Your task to perform on an android device: turn pop-ups on in chrome Image 0: 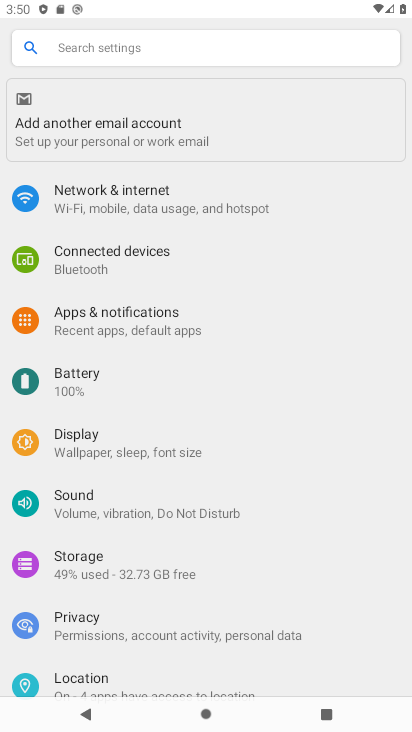
Step 0: press home button
Your task to perform on an android device: turn pop-ups on in chrome Image 1: 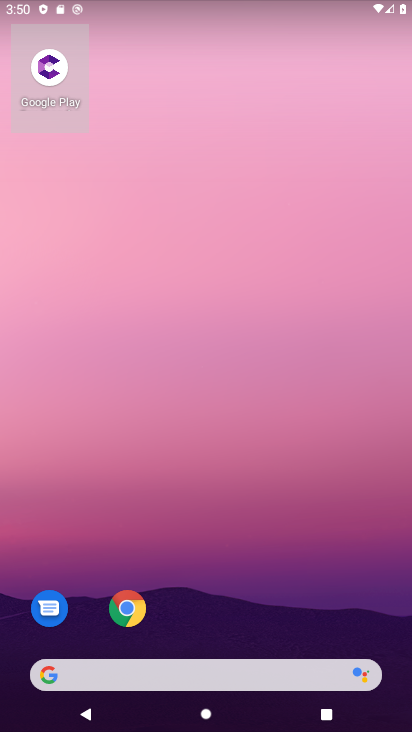
Step 1: click (142, 618)
Your task to perform on an android device: turn pop-ups on in chrome Image 2: 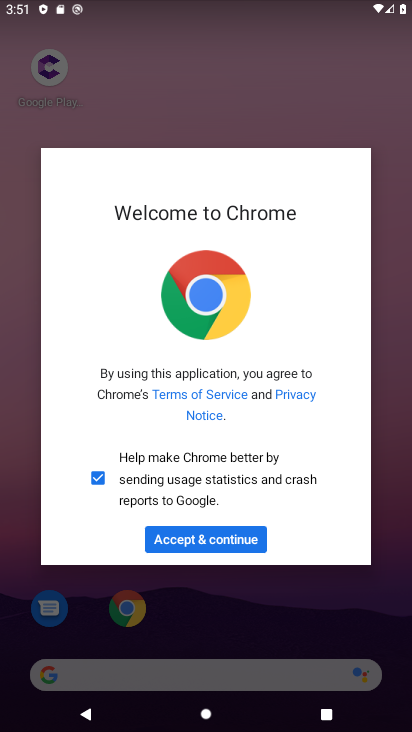
Step 2: click (174, 542)
Your task to perform on an android device: turn pop-ups on in chrome Image 3: 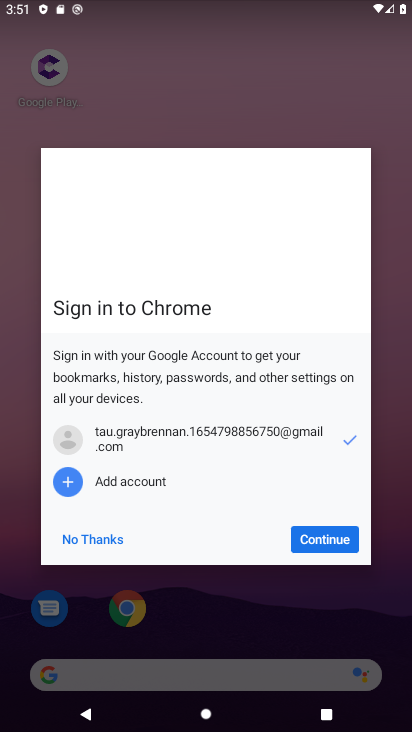
Step 3: click (349, 545)
Your task to perform on an android device: turn pop-ups on in chrome Image 4: 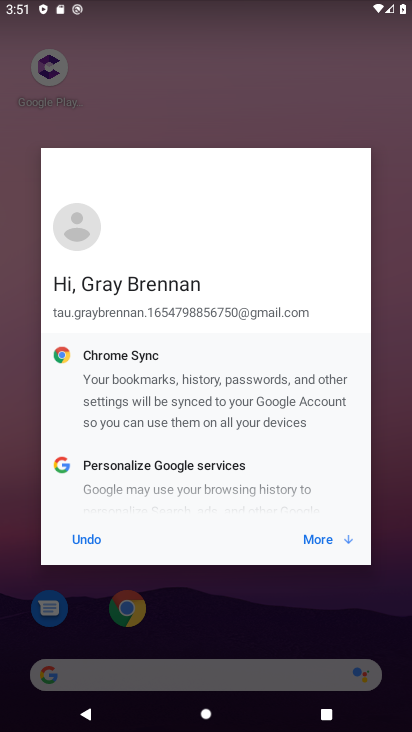
Step 4: click (333, 543)
Your task to perform on an android device: turn pop-ups on in chrome Image 5: 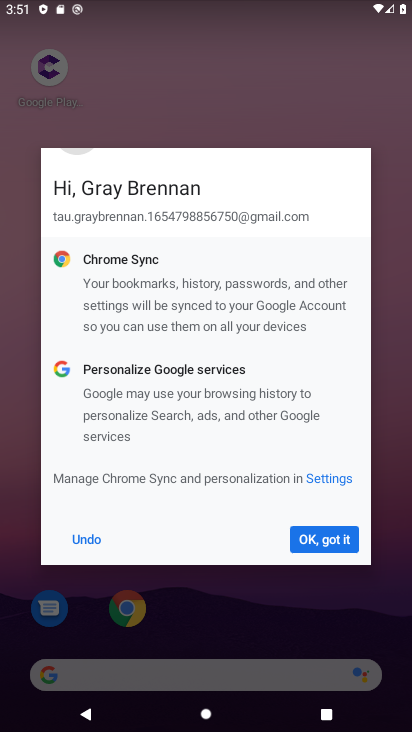
Step 5: click (333, 543)
Your task to perform on an android device: turn pop-ups on in chrome Image 6: 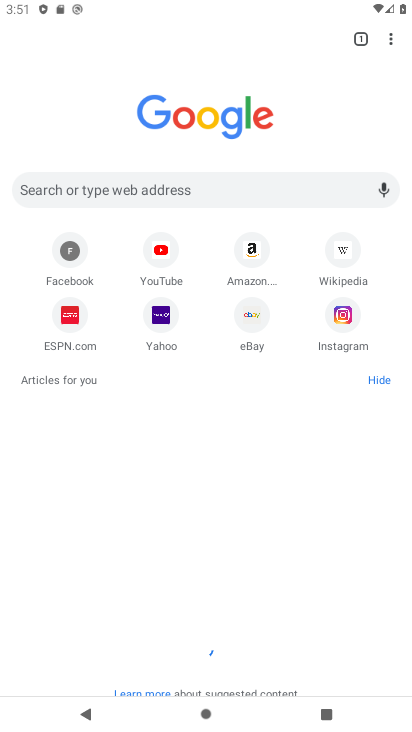
Step 6: click (384, 33)
Your task to perform on an android device: turn pop-ups on in chrome Image 7: 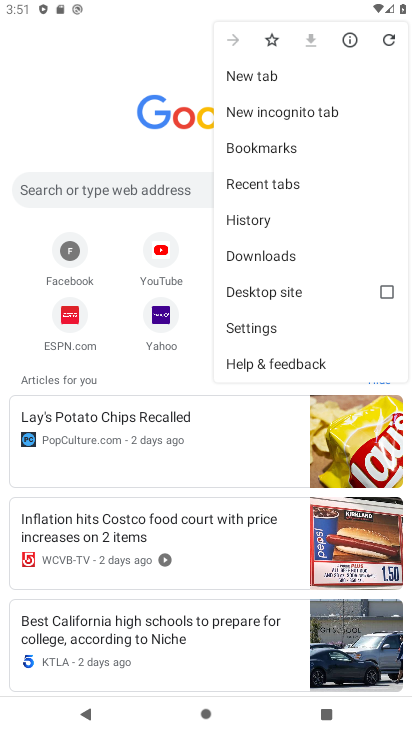
Step 7: click (271, 333)
Your task to perform on an android device: turn pop-ups on in chrome Image 8: 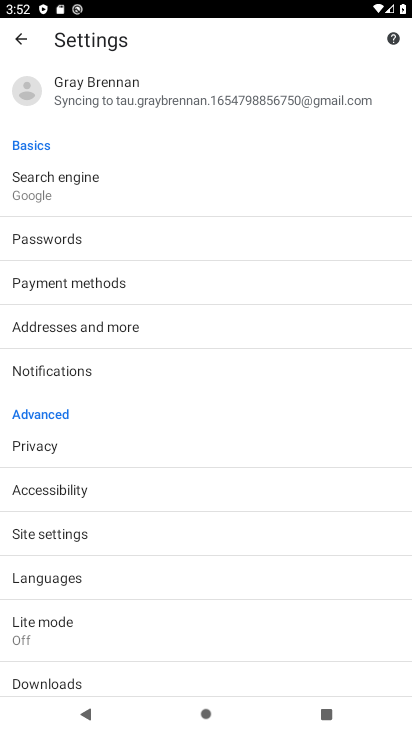
Step 8: click (94, 544)
Your task to perform on an android device: turn pop-ups on in chrome Image 9: 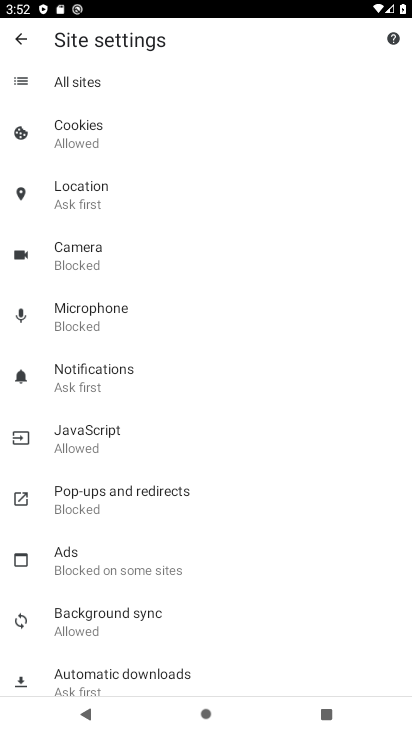
Step 9: click (127, 491)
Your task to perform on an android device: turn pop-ups on in chrome Image 10: 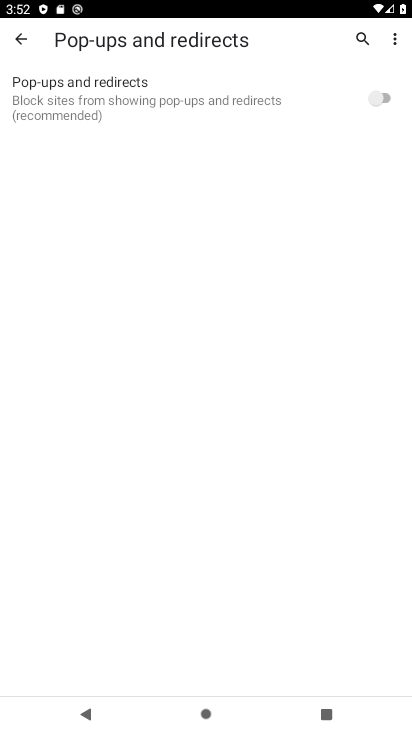
Step 10: click (366, 99)
Your task to perform on an android device: turn pop-ups on in chrome Image 11: 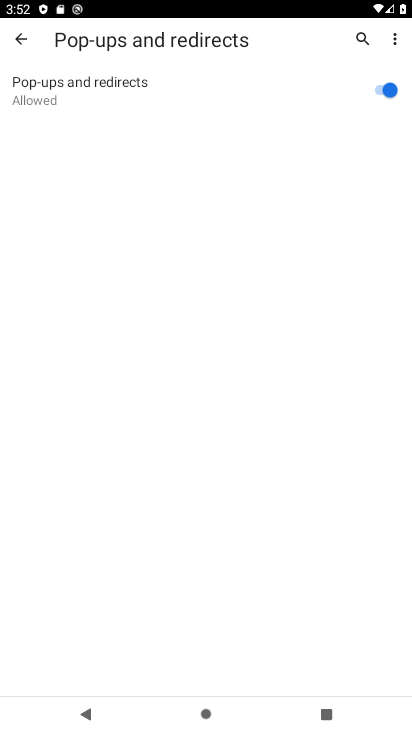
Step 11: task complete